Your task to perform on an android device: open a bookmark in the chrome app Image 0: 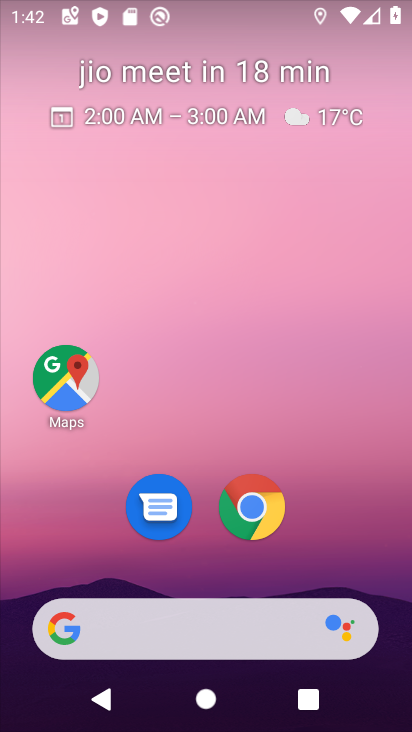
Step 0: drag from (326, 551) to (281, 26)
Your task to perform on an android device: open a bookmark in the chrome app Image 1: 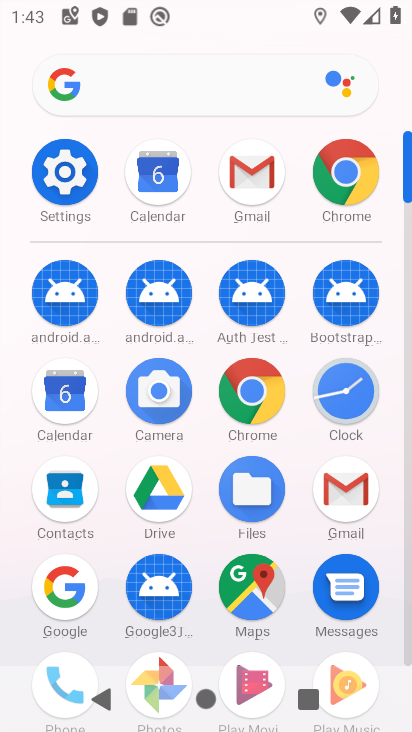
Step 1: click (248, 384)
Your task to perform on an android device: open a bookmark in the chrome app Image 2: 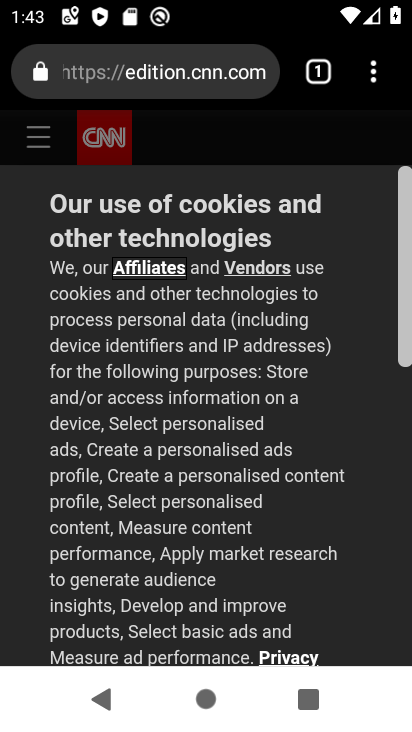
Step 2: task complete